Your task to perform on an android device: Clear the cart on walmart. Search for macbook on walmart, select the first entry, and add it to the cart. Image 0: 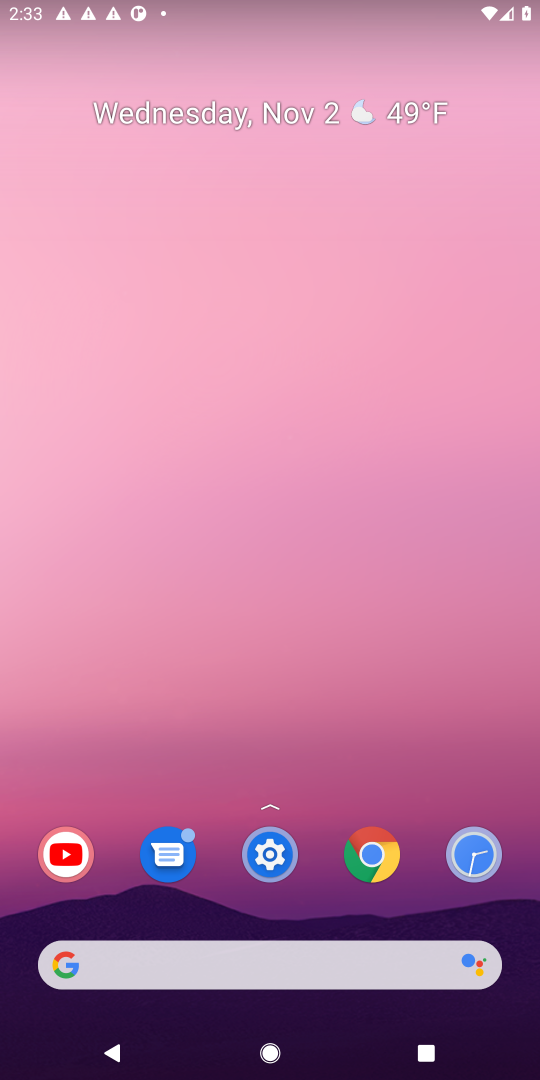
Step 0: click (133, 978)
Your task to perform on an android device: Clear the cart on walmart. Search for macbook on walmart, select the first entry, and add it to the cart. Image 1: 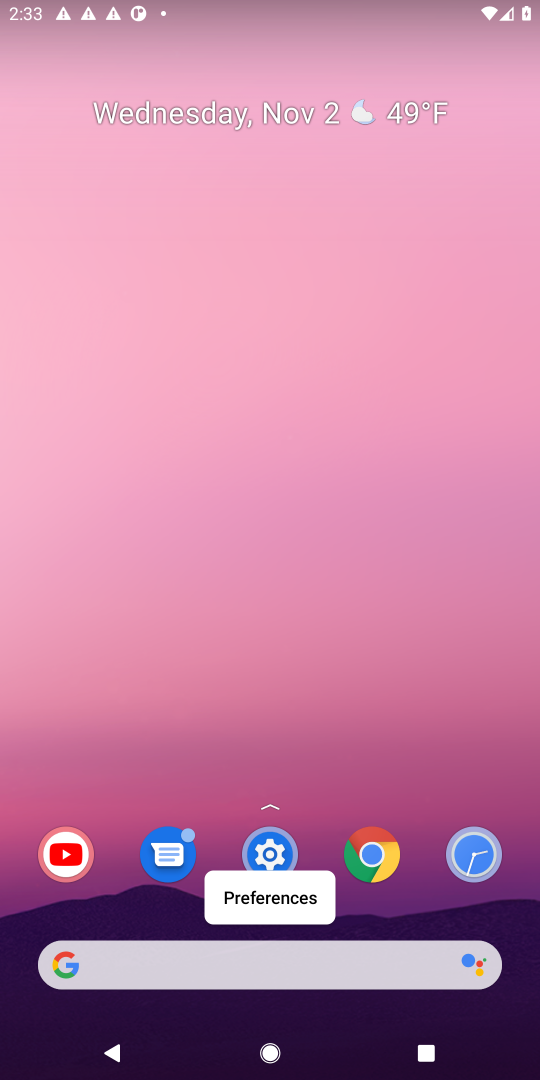
Step 1: click (133, 978)
Your task to perform on an android device: Clear the cart on walmart. Search for macbook on walmart, select the first entry, and add it to the cart. Image 2: 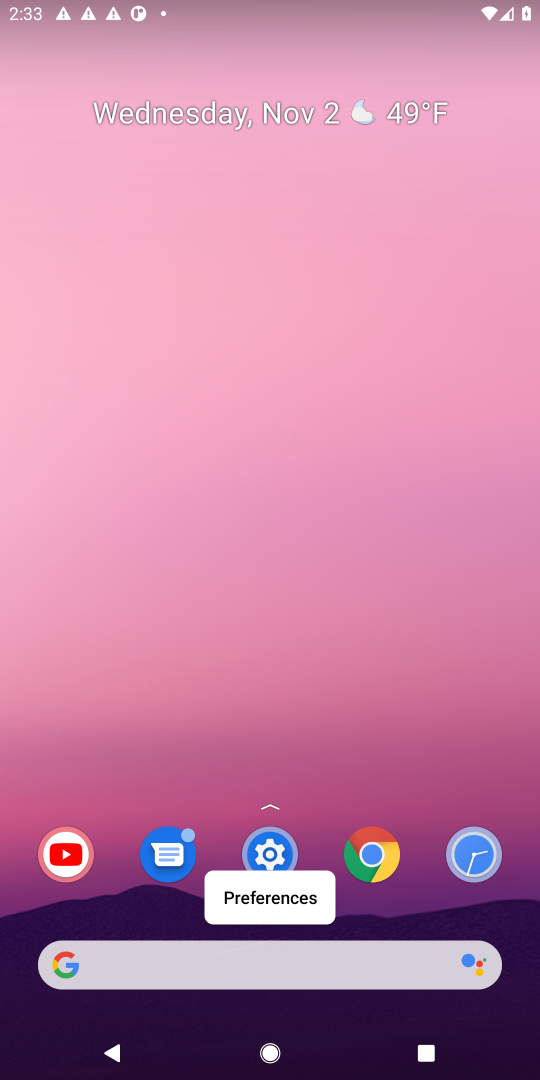
Step 2: click (133, 978)
Your task to perform on an android device: Clear the cart on walmart. Search for macbook on walmart, select the first entry, and add it to the cart. Image 3: 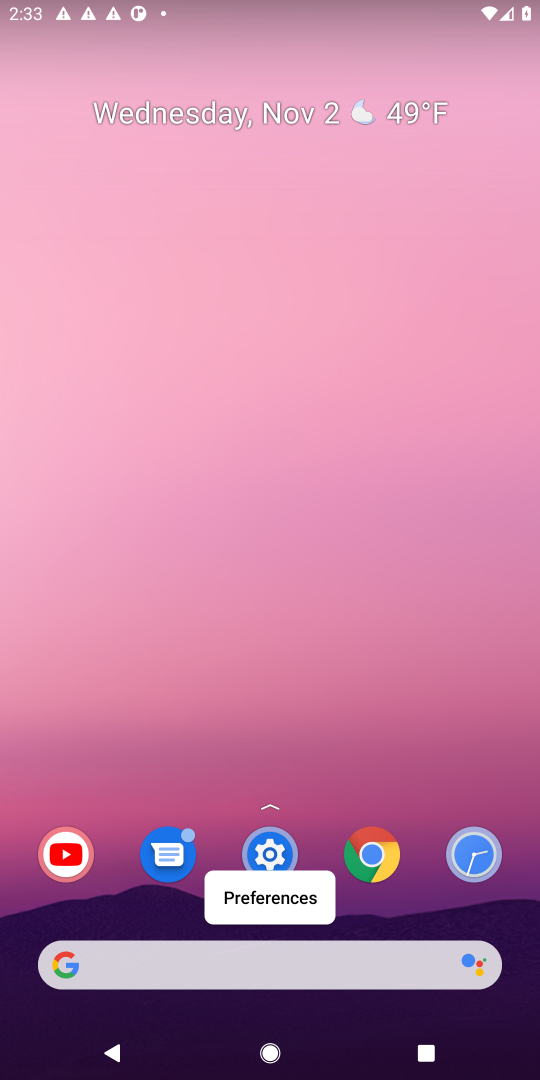
Step 3: click (133, 978)
Your task to perform on an android device: Clear the cart on walmart. Search for macbook on walmart, select the first entry, and add it to the cart. Image 4: 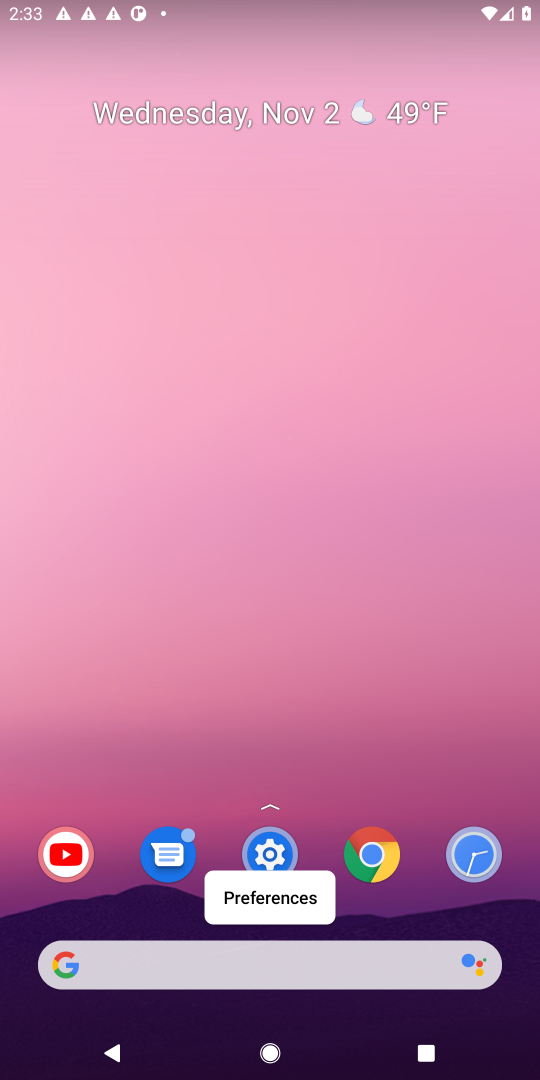
Step 4: click (163, 964)
Your task to perform on an android device: Clear the cart on walmart. Search for macbook on walmart, select the first entry, and add it to the cart. Image 5: 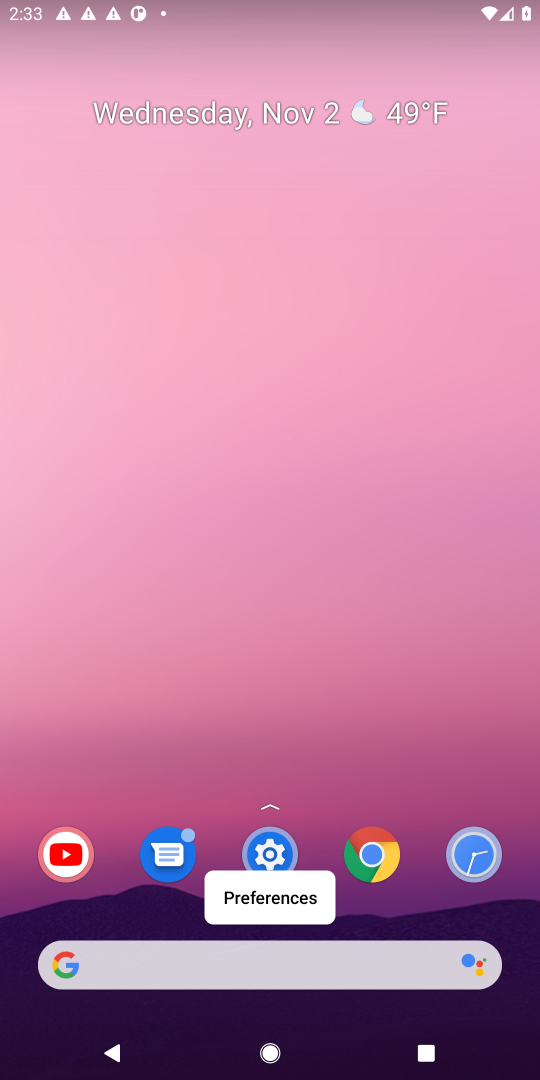
Step 5: click (143, 964)
Your task to perform on an android device: Clear the cart on walmart. Search for macbook on walmart, select the first entry, and add it to the cart. Image 6: 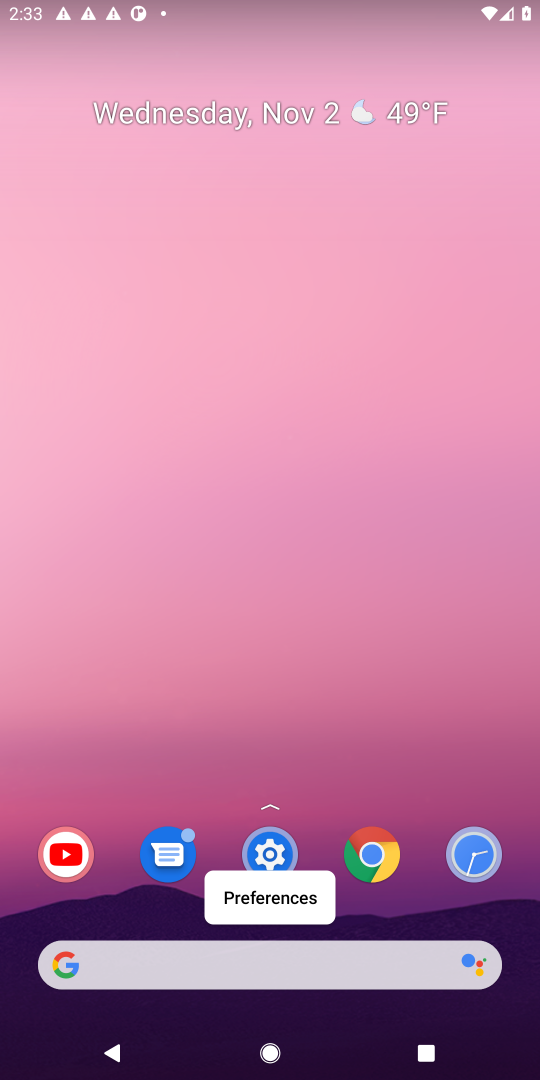
Step 6: click (177, 976)
Your task to perform on an android device: Clear the cart on walmart. Search for macbook on walmart, select the first entry, and add it to the cart. Image 7: 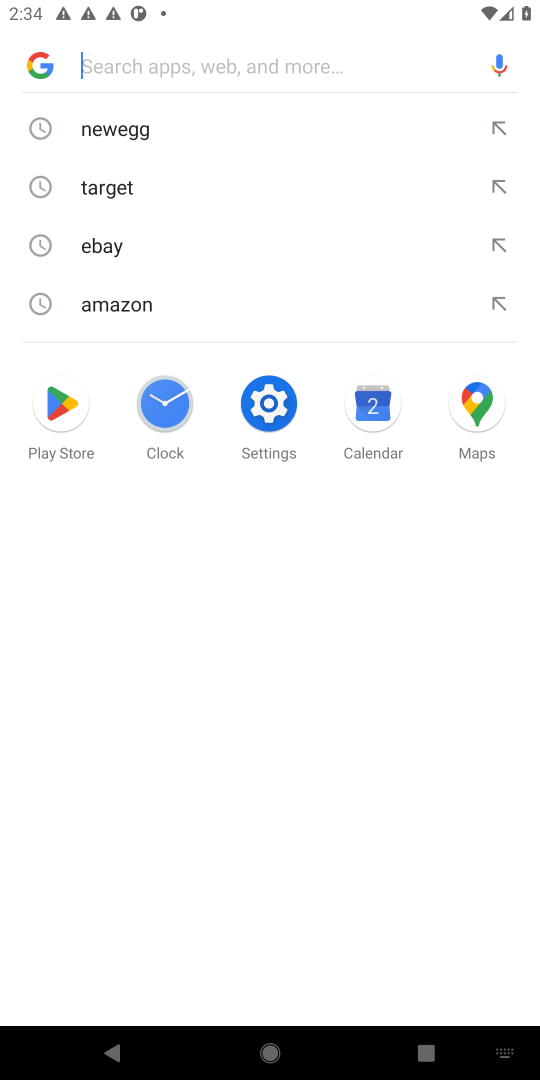
Step 7: click (177, 976)
Your task to perform on an android device: Clear the cart on walmart. Search for macbook on walmart, select the first entry, and add it to the cart. Image 8: 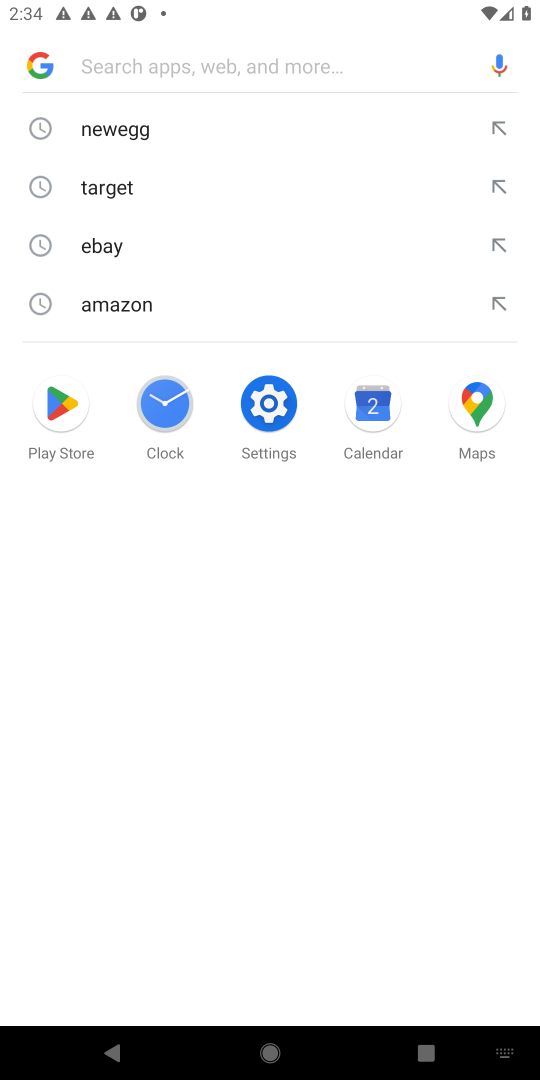
Step 8: type "walmart"
Your task to perform on an android device: Clear the cart on walmart. Search for macbook on walmart, select the first entry, and add it to the cart. Image 9: 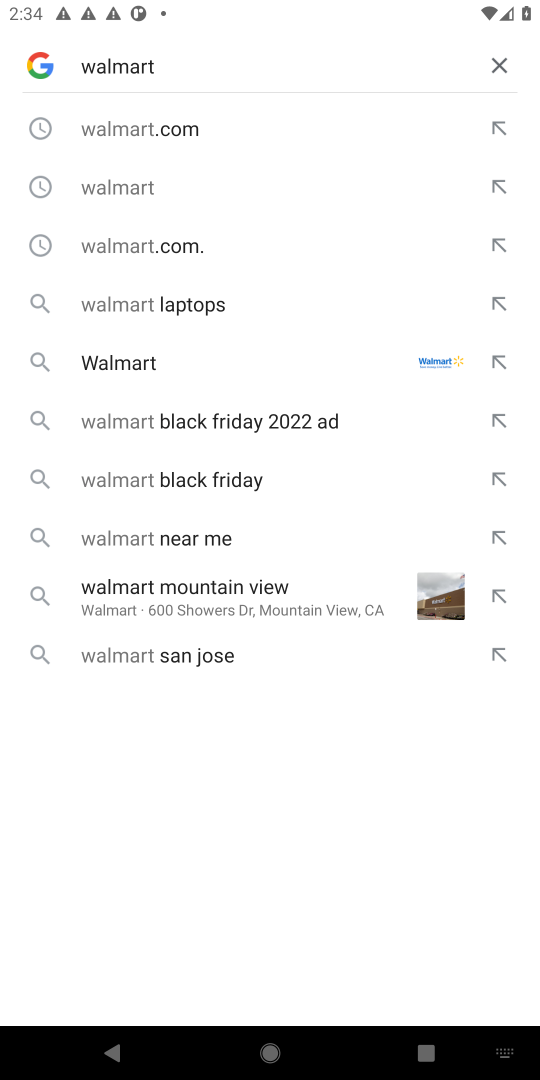
Step 9: press enter
Your task to perform on an android device: Clear the cart on walmart. Search for macbook on walmart, select the first entry, and add it to the cart. Image 10: 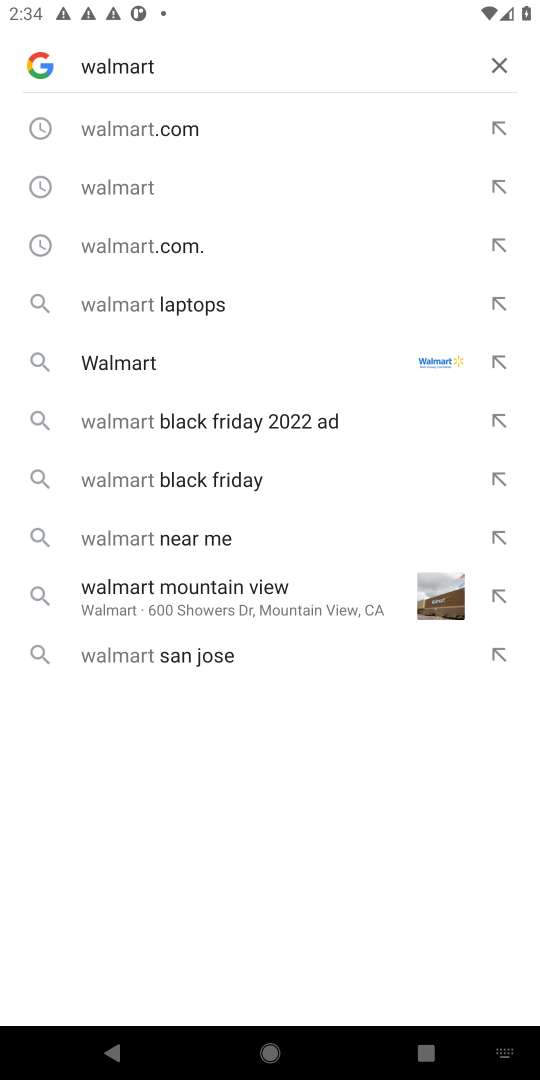
Step 10: type ""
Your task to perform on an android device: Clear the cart on walmart. Search for macbook on walmart, select the first entry, and add it to the cart. Image 11: 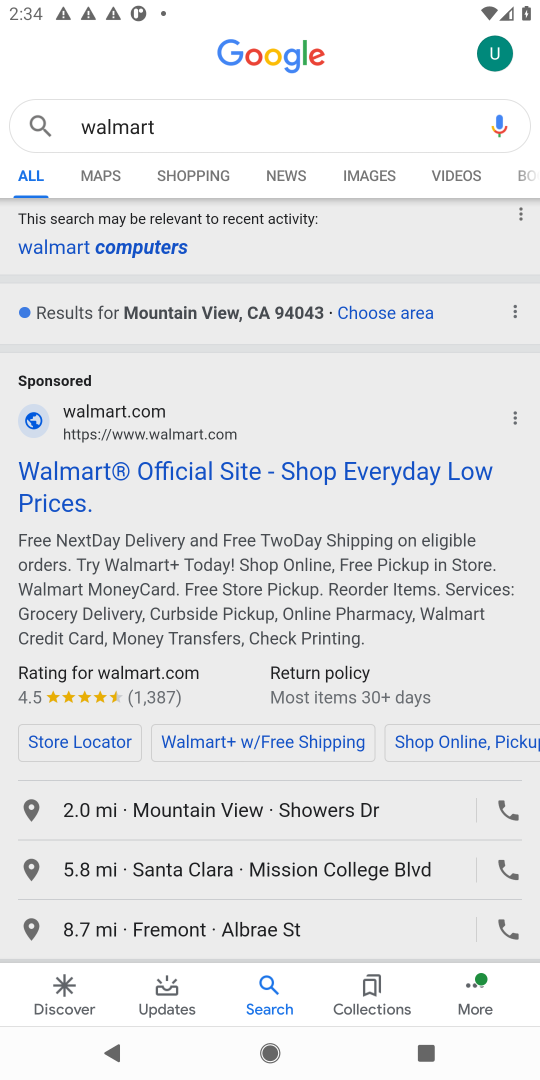
Step 11: click (123, 478)
Your task to perform on an android device: Clear the cart on walmart. Search for macbook on walmart, select the first entry, and add it to the cart. Image 12: 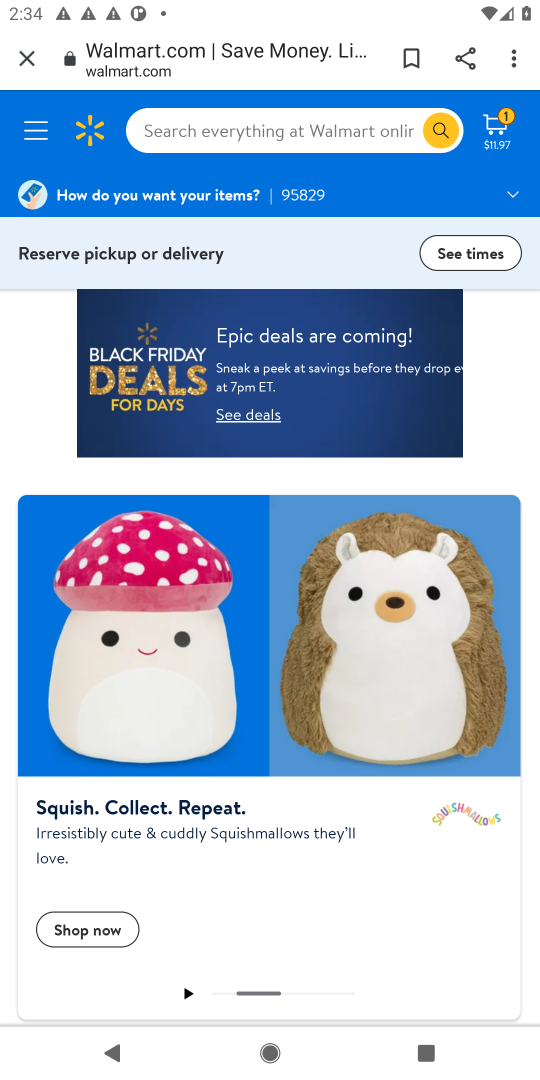
Step 12: click (279, 138)
Your task to perform on an android device: Clear the cart on walmart. Search for macbook on walmart, select the first entry, and add it to the cart. Image 13: 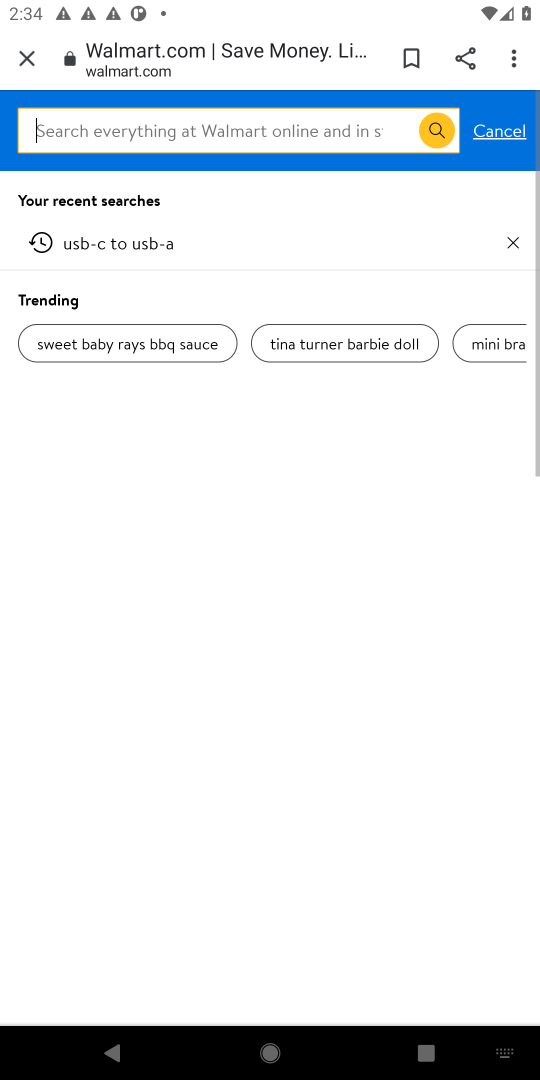
Step 13: click (512, 131)
Your task to perform on an android device: Clear the cart on walmart. Search for macbook on walmart, select the first entry, and add it to the cart. Image 14: 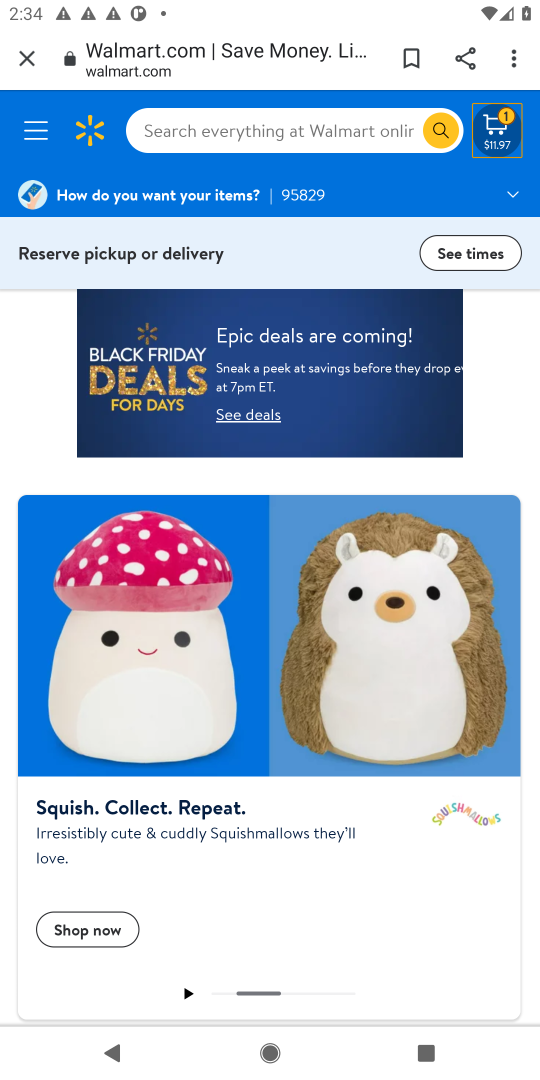
Step 14: click (496, 140)
Your task to perform on an android device: Clear the cart on walmart. Search for macbook on walmart, select the first entry, and add it to the cart. Image 15: 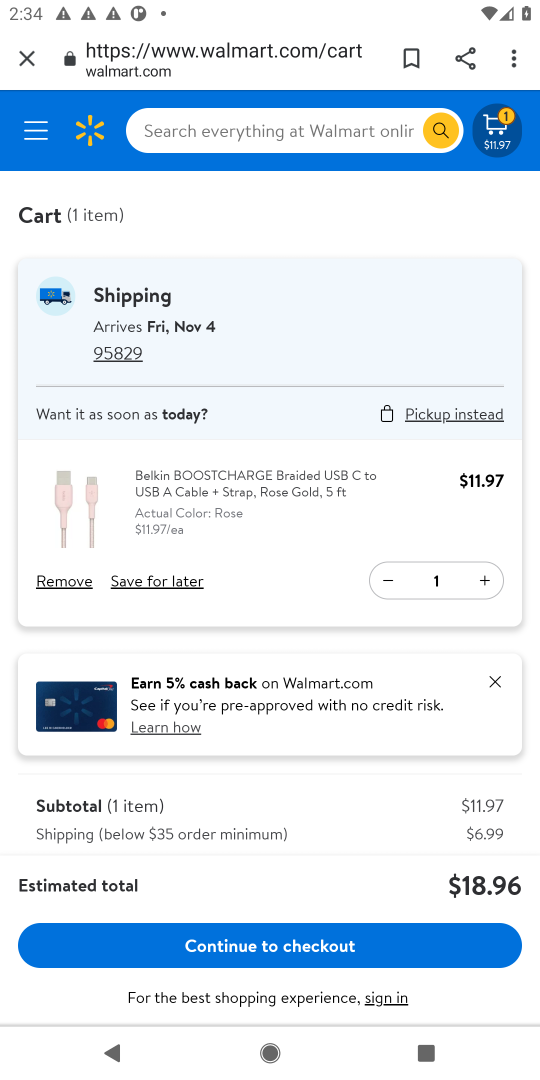
Step 15: click (69, 582)
Your task to perform on an android device: Clear the cart on walmart. Search for macbook on walmart, select the first entry, and add it to the cart. Image 16: 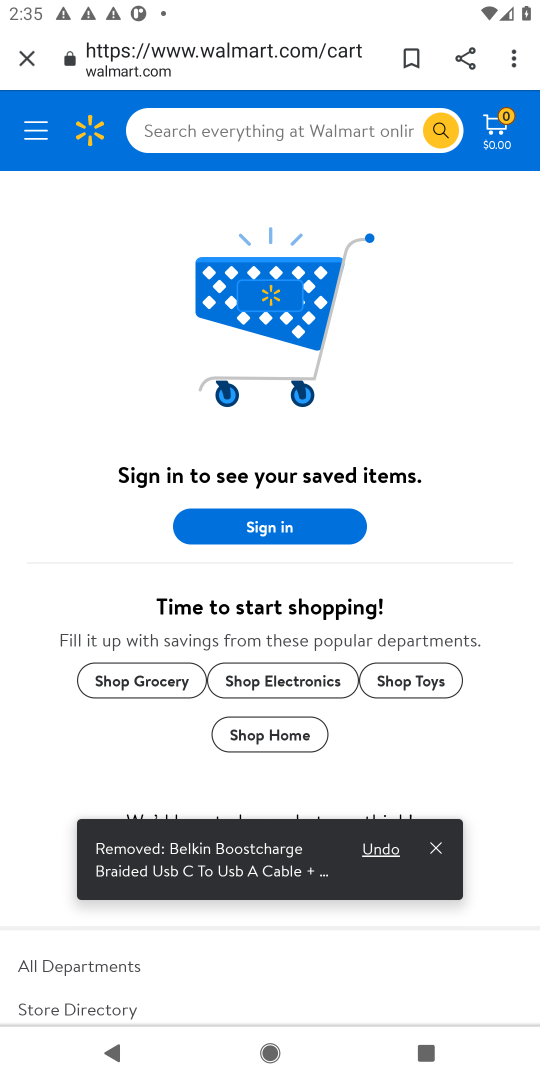
Step 16: click (333, 136)
Your task to perform on an android device: Clear the cart on walmart. Search for macbook on walmart, select the first entry, and add it to the cart. Image 17: 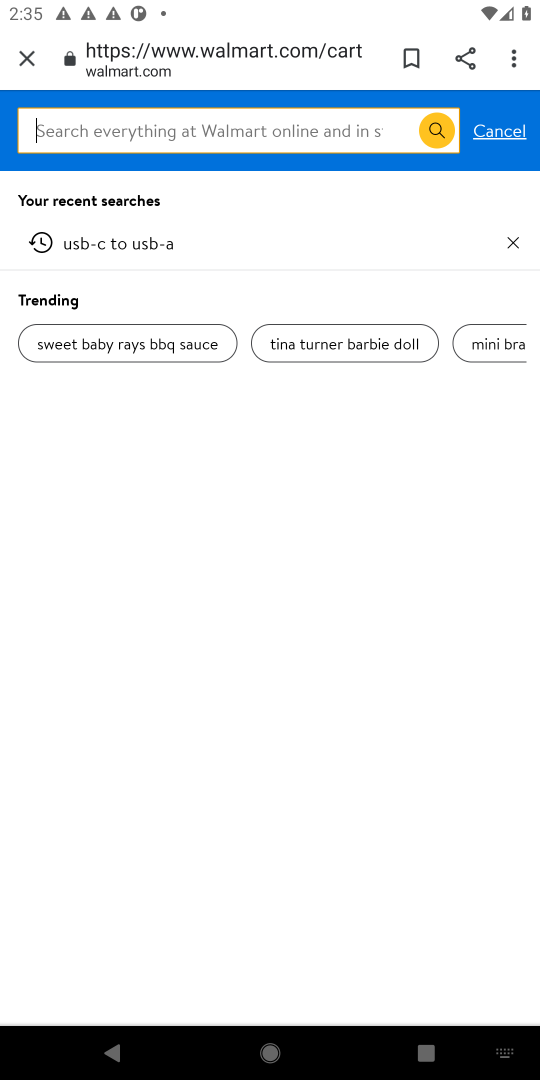
Step 17: type "macbook"
Your task to perform on an android device: Clear the cart on walmart. Search for macbook on walmart, select the first entry, and add it to the cart. Image 18: 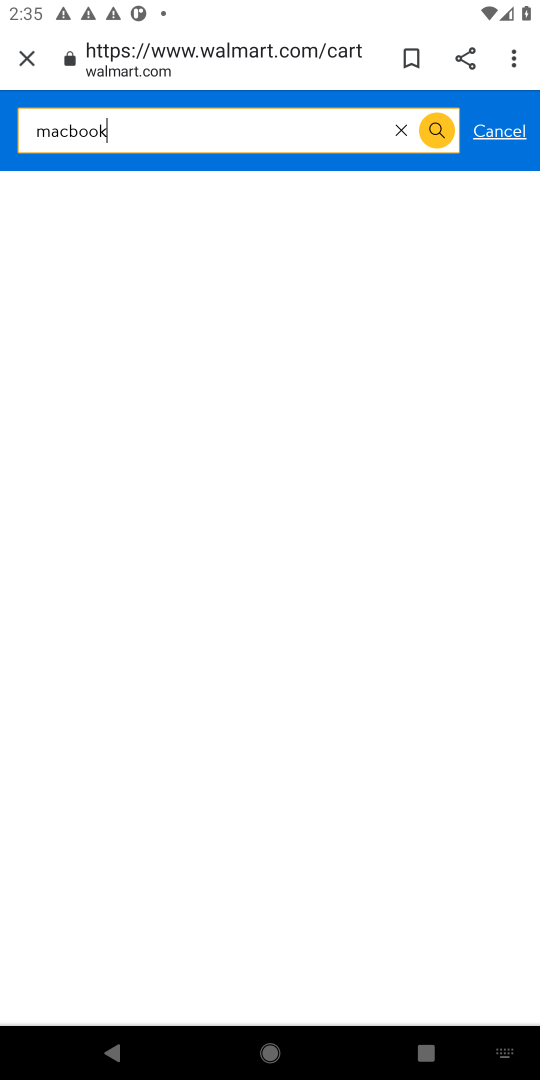
Step 18: type ""
Your task to perform on an android device: Clear the cart on walmart. Search for macbook on walmart, select the first entry, and add it to the cart. Image 19: 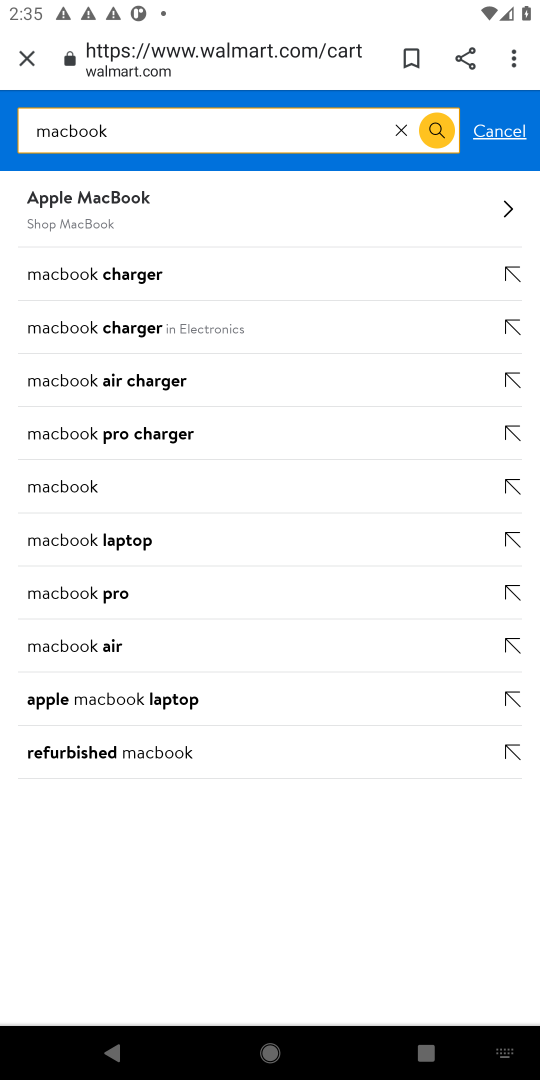
Step 19: press enter
Your task to perform on an android device: Clear the cart on walmart. Search for macbook on walmart, select the first entry, and add it to the cart. Image 20: 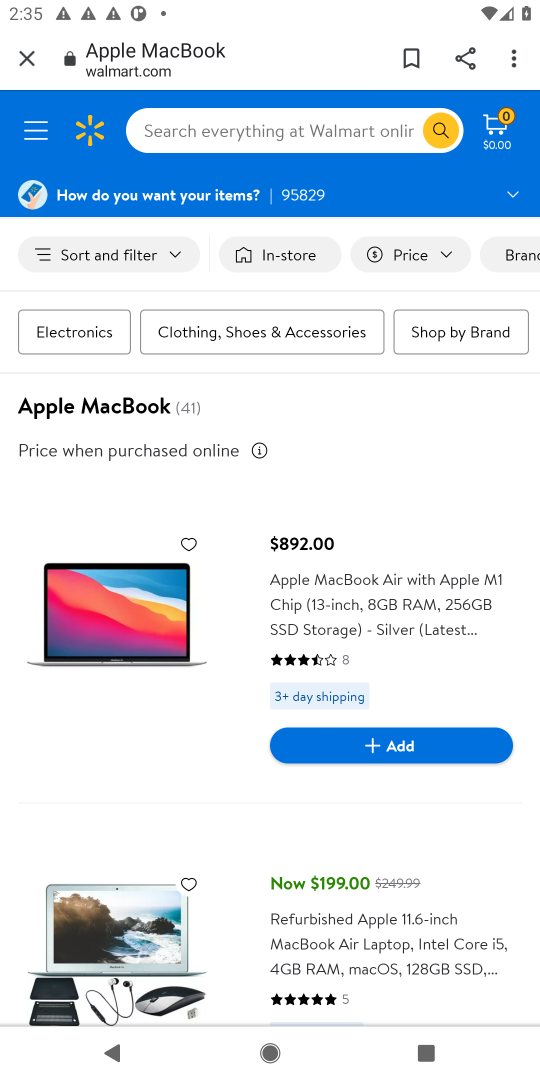
Step 20: click (399, 747)
Your task to perform on an android device: Clear the cart on walmart. Search for macbook on walmart, select the first entry, and add it to the cart. Image 21: 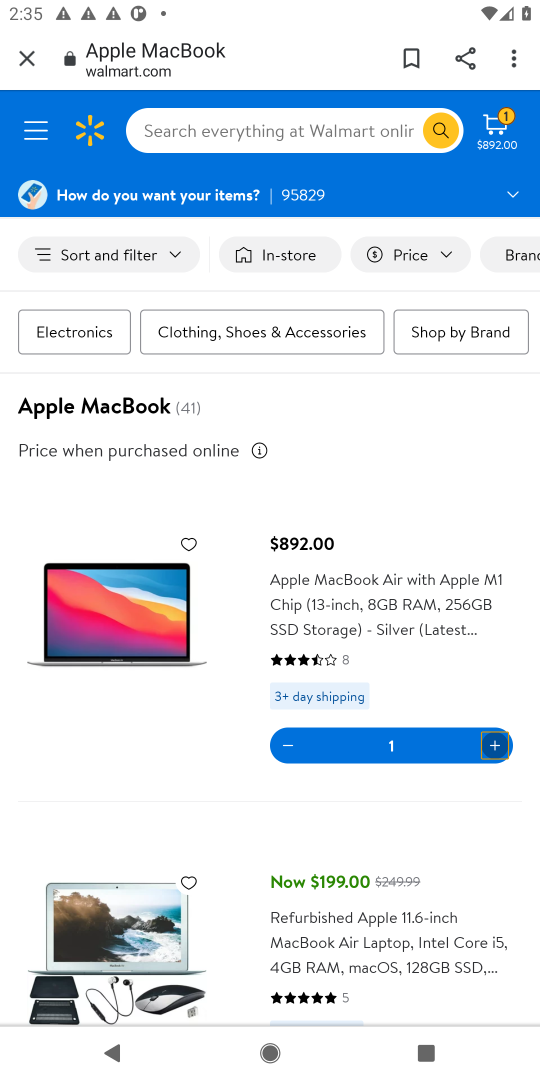
Step 21: click (497, 748)
Your task to perform on an android device: Clear the cart on walmart. Search for macbook on walmart, select the first entry, and add it to the cart. Image 22: 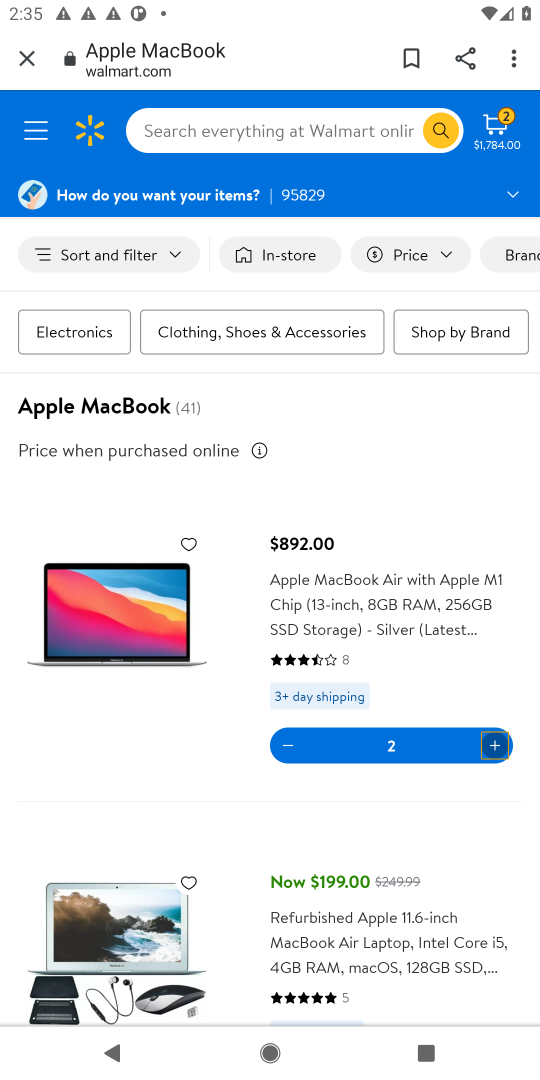
Step 22: task complete